Your task to perform on an android device: Open Google Chrome and click the shortcut for Amazon.com Image 0: 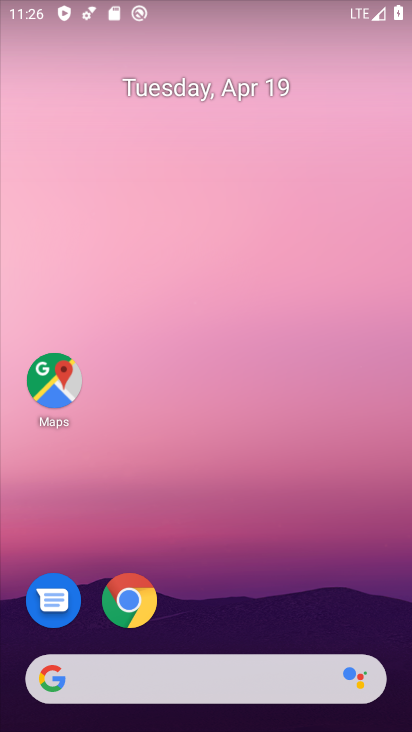
Step 0: click (136, 609)
Your task to perform on an android device: Open Google Chrome and click the shortcut for Amazon.com Image 1: 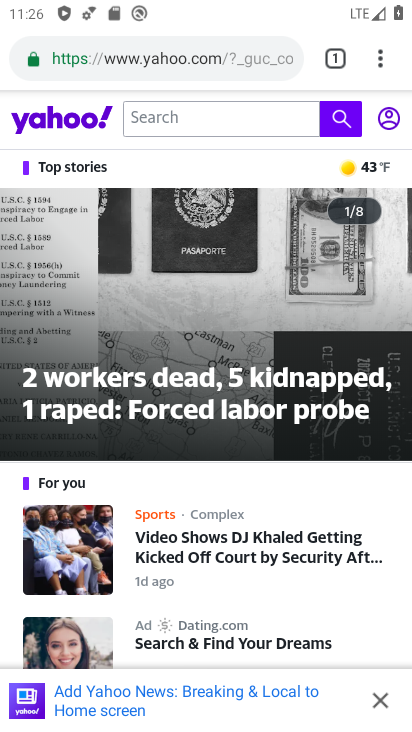
Step 1: click (384, 56)
Your task to perform on an android device: Open Google Chrome and click the shortcut for Amazon.com Image 2: 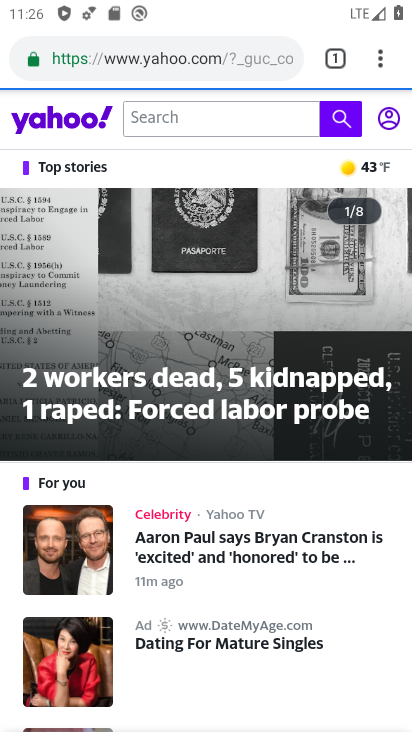
Step 2: click (167, 120)
Your task to perform on an android device: Open Google Chrome and click the shortcut for Amazon.com Image 3: 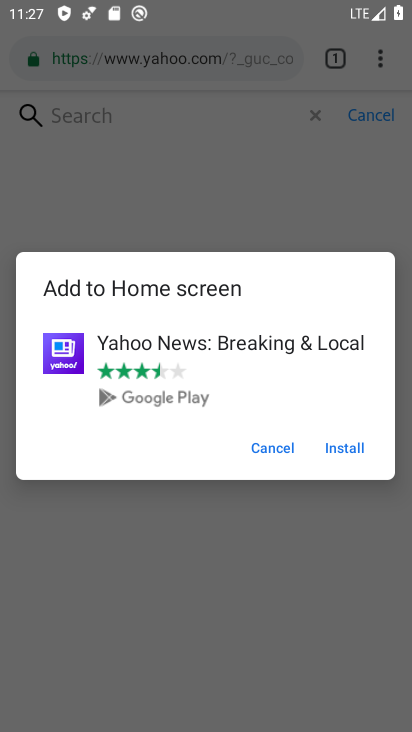
Step 3: click (259, 450)
Your task to perform on an android device: Open Google Chrome and click the shortcut for Amazon.com Image 4: 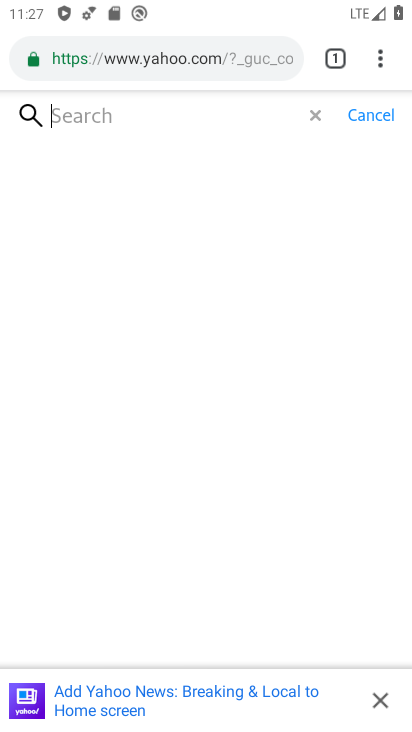
Step 4: click (380, 61)
Your task to perform on an android device: Open Google Chrome and click the shortcut for Amazon.com Image 5: 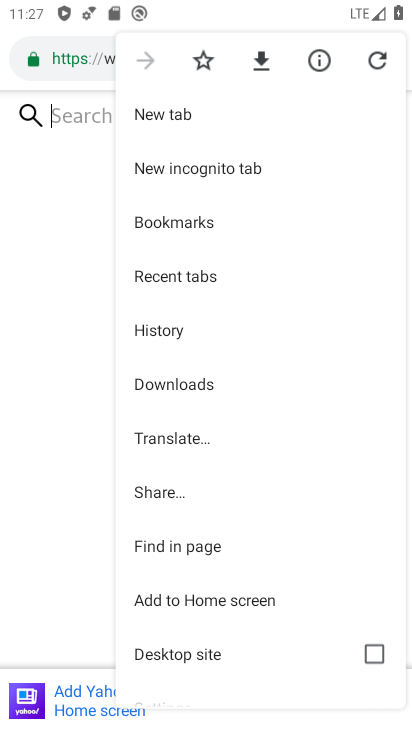
Step 5: click (170, 116)
Your task to perform on an android device: Open Google Chrome and click the shortcut for Amazon.com Image 6: 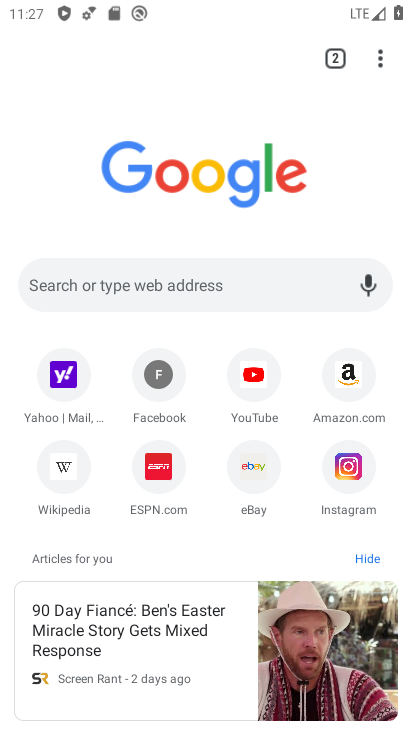
Step 6: click (355, 380)
Your task to perform on an android device: Open Google Chrome and click the shortcut for Amazon.com Image 7: 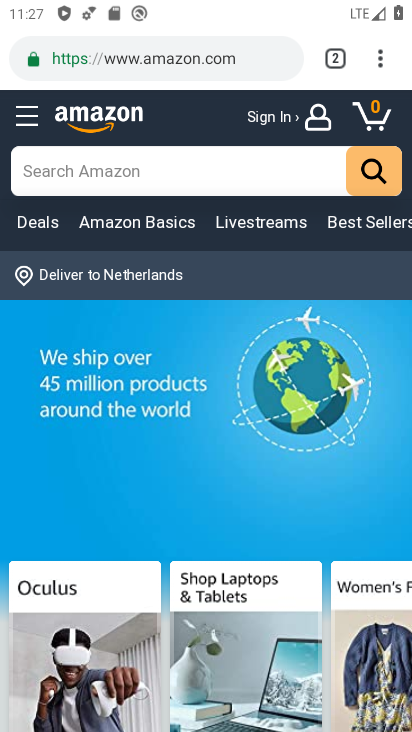
Step 7: task complete